Your task to perform on an android device: Open battery settings Image 0: 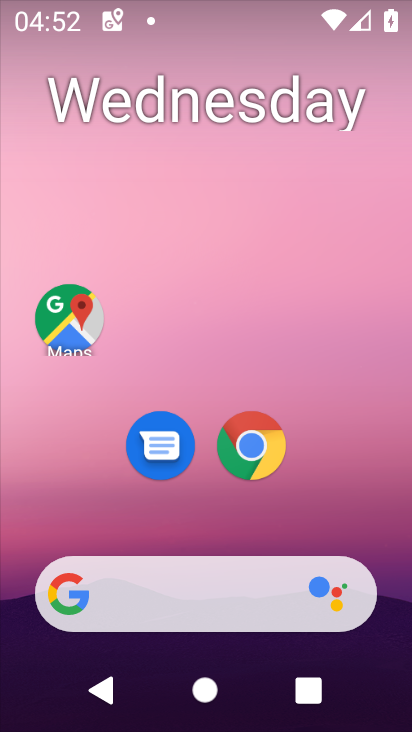
Step 0: drag from (217, 529) to (292, 41)
Your task to perform on an android device: Open battery settings Image 1: 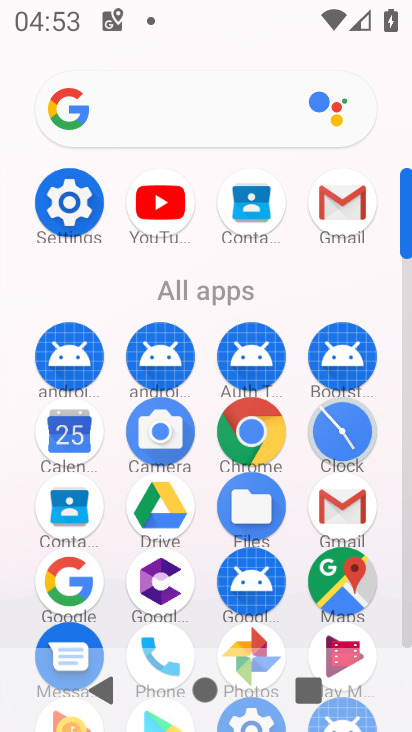
Step 1: click (80, 200)
Your task to perform on an android device: Open battery settings Image 2: 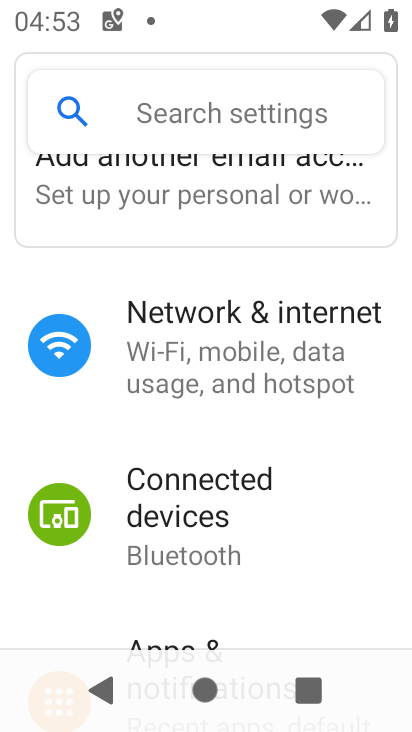
Step 2: drag from (116, 582) to (175, 111)
Your task to perform on an android device: Open battery settings Image 3: 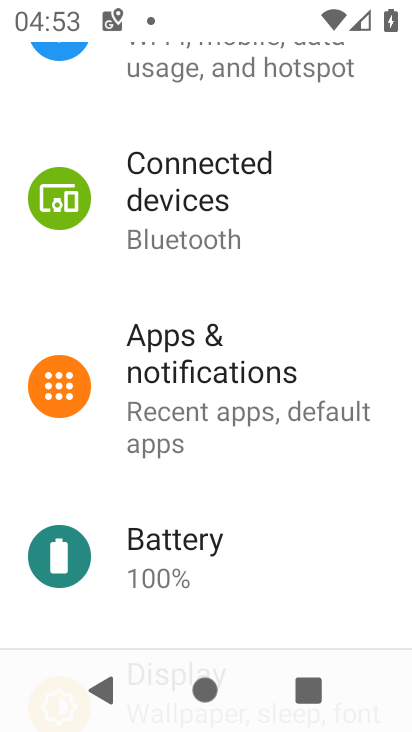
Step 3: click (175, 560)
Your task to perform on an android device: Open battery settings Image 4: 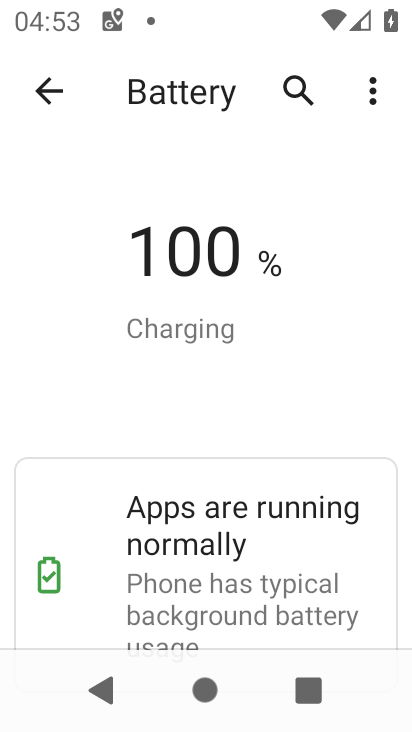
Step 4: task complete